Your task to perform on an android device: Find coffee shops on Maps Image 0: 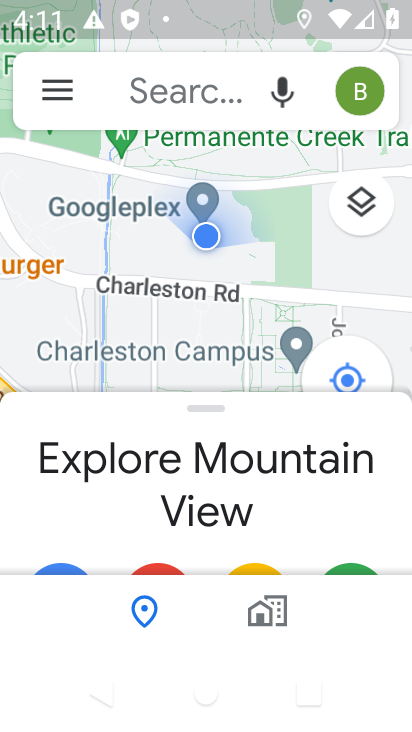
Step 0: press home button
Your task to perform on an android device: Find coffee shops on Maps Image 1: 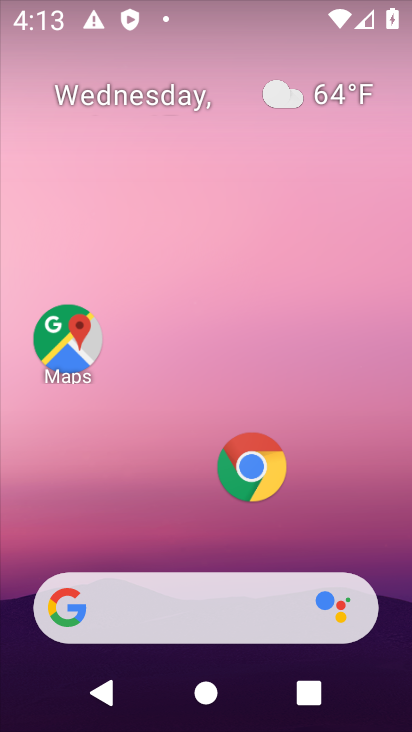
Step 1: drag from (147, 500) to (209, 4)
Your task to perform on an android device: Find coffee shops on Maps Image 2: 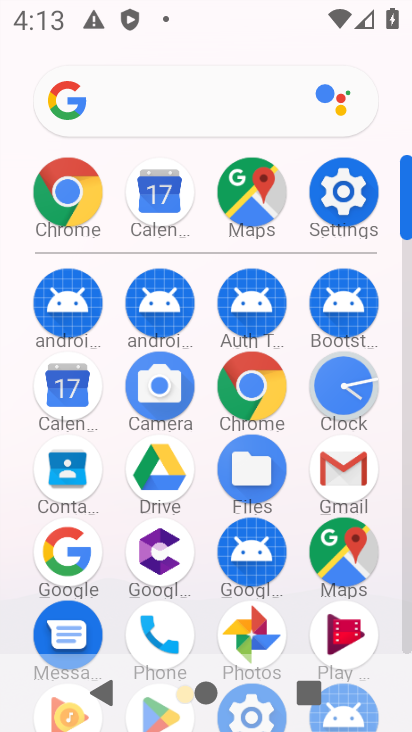
Step 2: click (249, 194)
Your task to perform on an android device: Find coffee shops on Maps Image 3: 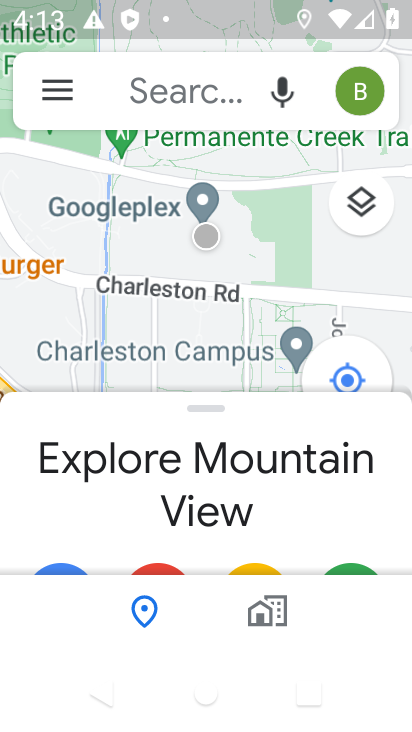
Step 3: task complete